Your task to perform on an android device: turn pop-ups off in chrome Image 0: 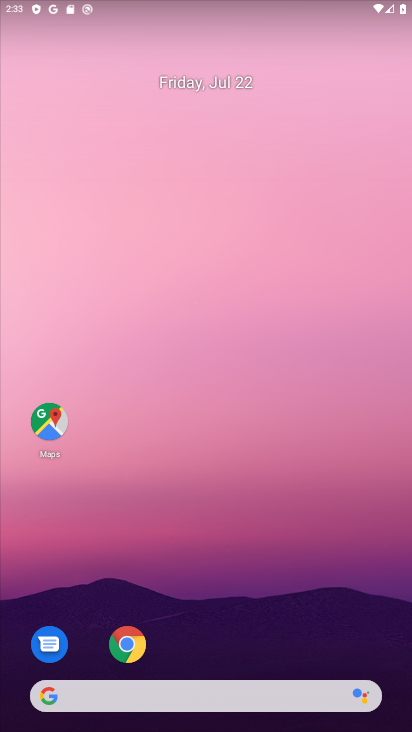
Step 0: click (125, 651)
Your task to perform on an android device: turn pop-ups off in chrome Image 1: 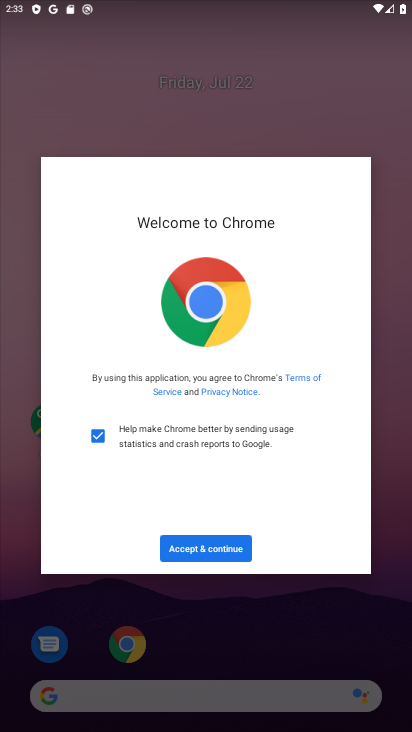
Step 1: click (213, 551)
Your task to perform on an android device: turn pop-ups off in chrome Image 2: 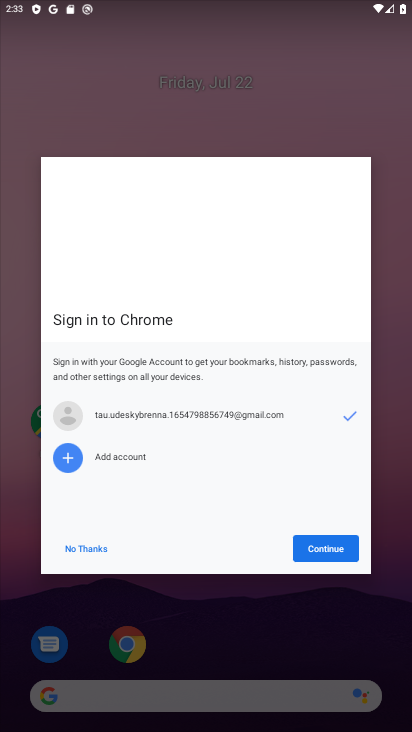
Step 2: click (343, 543)
Your task to perform on an android device: turn pop-ups off in chrome Image 3: 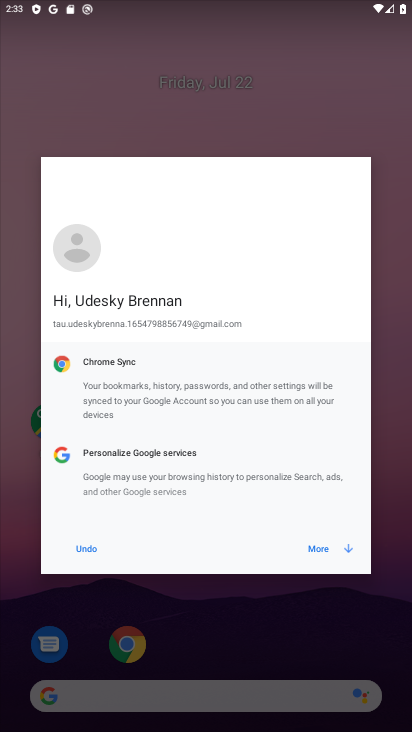
Step 3: click (320, 543)
Your task to perform on an android device: turn pop-ups off in chrome Image 4: 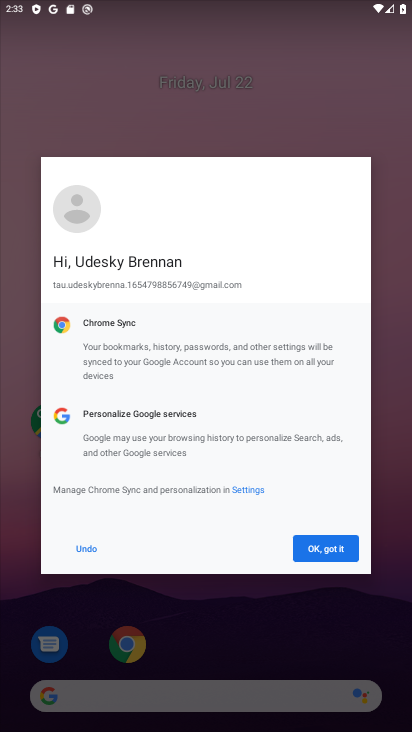
Step 4: click (323, 545)
Your task to perform on an android device: turn pop-ups off in chrome Image 5: 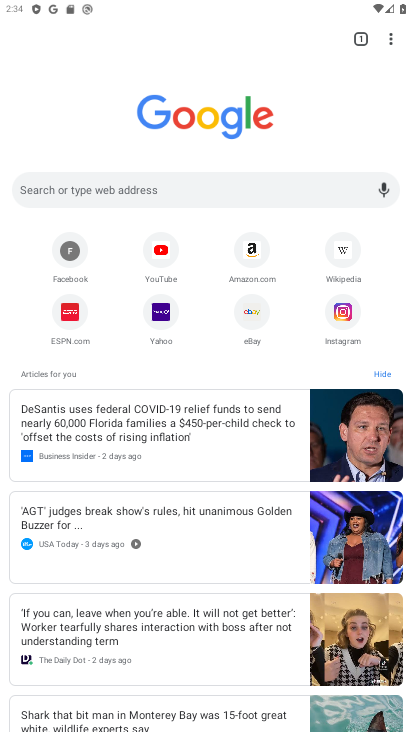
Step 5: task complete